Your task to perform on an android device: delete the emails in spam in the gmail app Image 0: 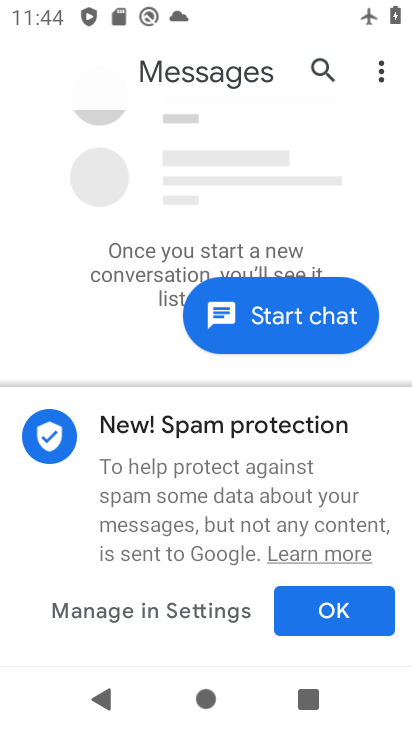
Step 0: press home button
Your task to perform on an android device: delete the emails in spam in the gmail app Image 1: 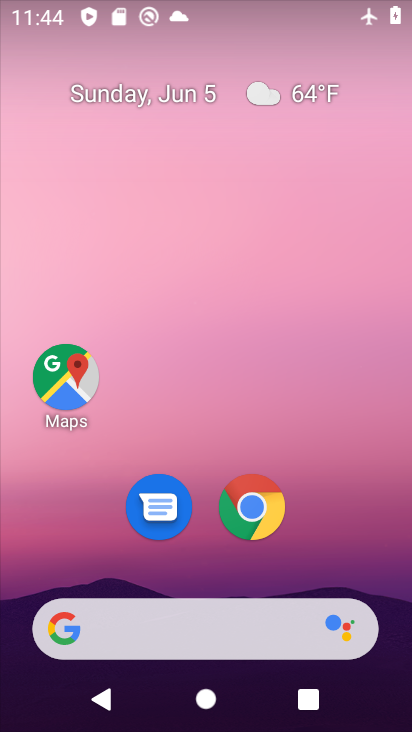
Step 1: drag from (324, 544) to (319, 96)
Your task to perform on an android device: delete the emails in spam in the gmail app Image 2: 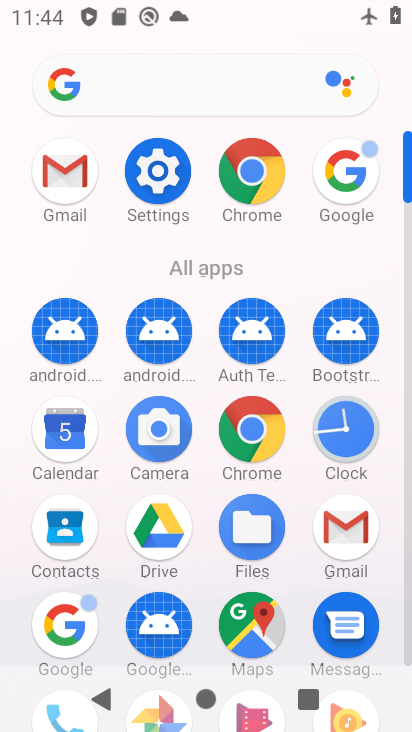
Step 2: click (63, 174)
Your task to perform on an android device: delete the emails in spam in the gmail app Image 3: 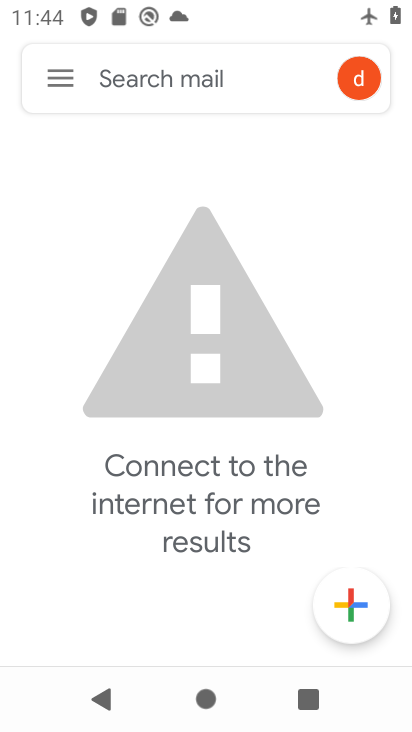
Step 3: click (63, 78)
Your task to perform on an android device: delete the emails in spam in the gmail app Image 4: 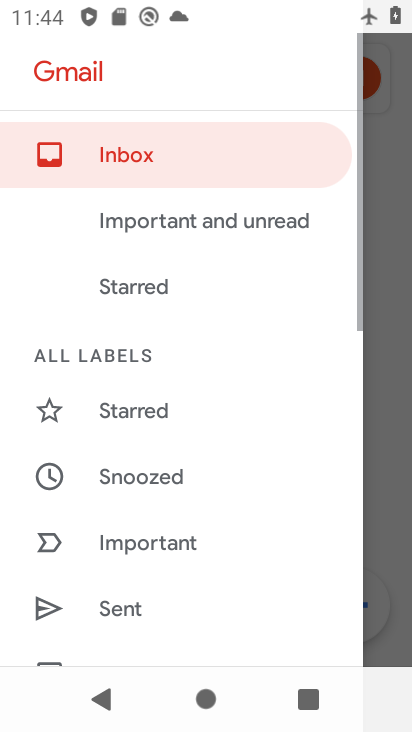
Step 4: drag from (197, 493) to (251, 163)
Your task to perform on an android device: delete the emails in spam in the gmail app Image 5: 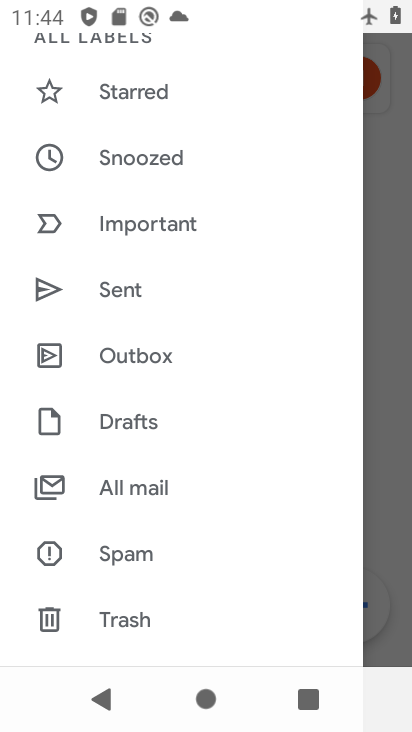
Step 5: click (134, 565)
Your task to perform on an android device: delete the emails in spam in the gmail app Image 6: 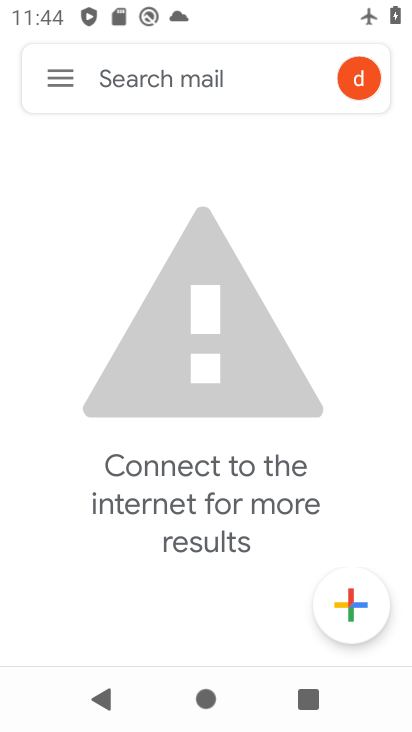
Step 6: task complete